Your task to perform on an android device: stop showing notifications on the lock screen Image 0: 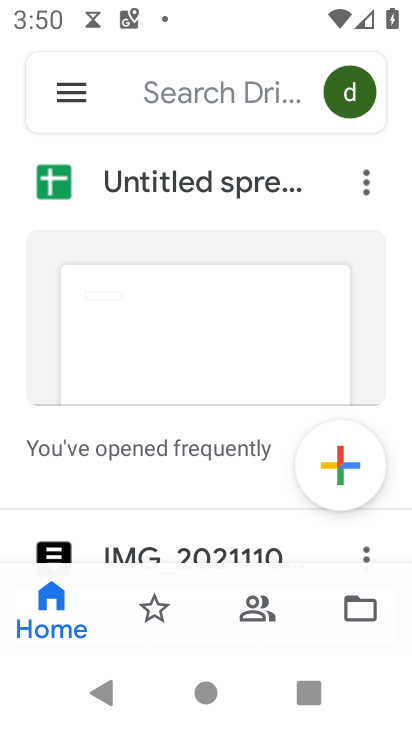
Step 0: press home button
Your task to perform on an android device: stop showing notifications on the lock screen Image 1: 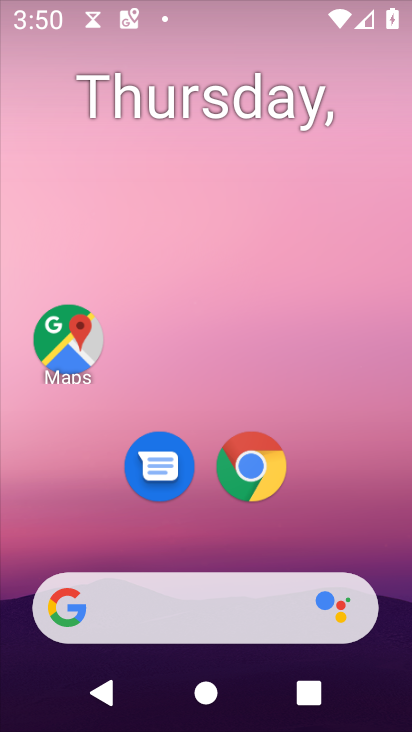
Step 1: drag from (317, 618) to (354, 4)
Your task to perform on an android device: stop showing notifications on the lock screen Image 2: 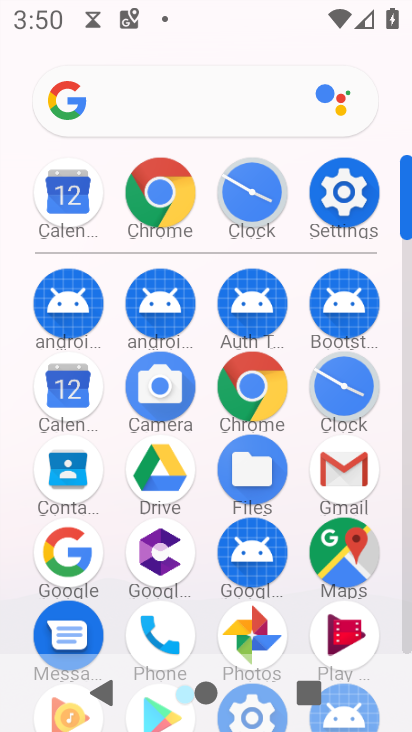
Step 2: click (359, 189)
Your task to perform on an android device: stop showing notifications on the lock screen Image 3: 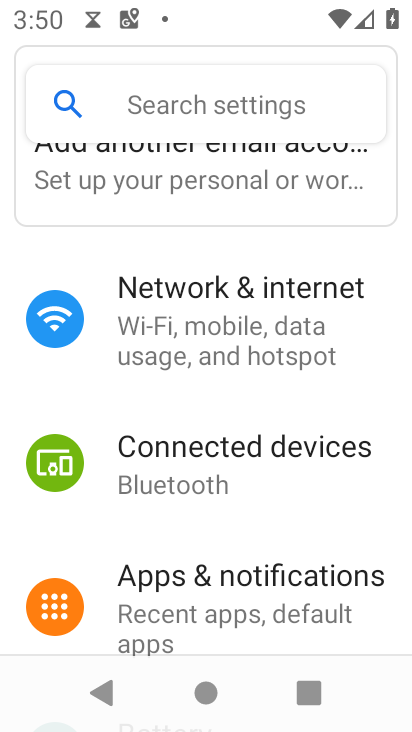
Step 3: drag from (247, 611) to (269, 199)
Your task to perform on an android device: stop showing notifications on the lock screen Image 4: 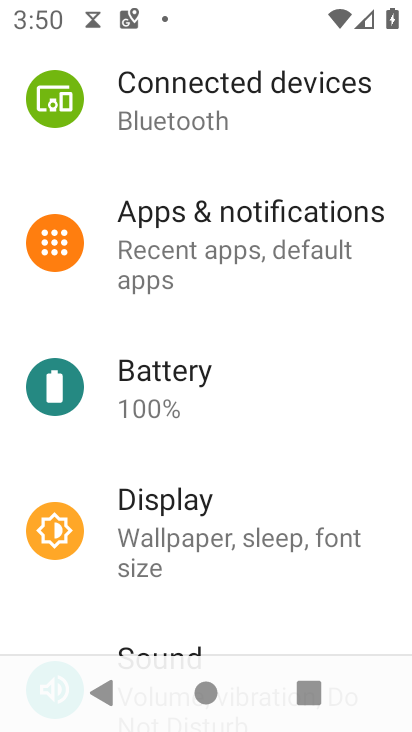
Step 4: click (293, 212)
Your task to perform on an android device: stop showing notifications on the lock screen Image 5: 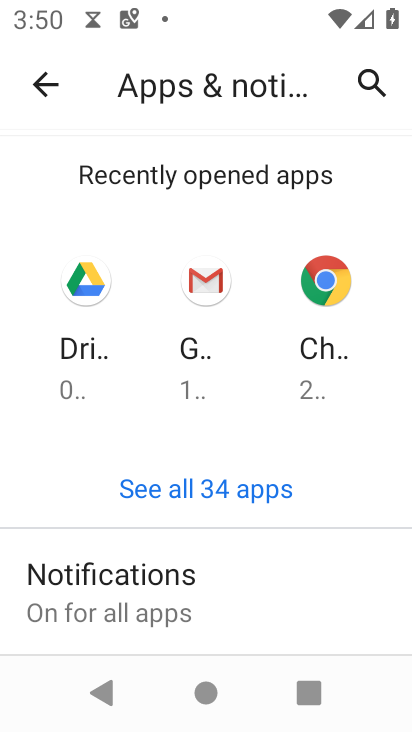
Step 5: drag from (157, 666) to (223, 206)
Your task to perform on an android device: stop showing notifications on the lock screen Image 6: 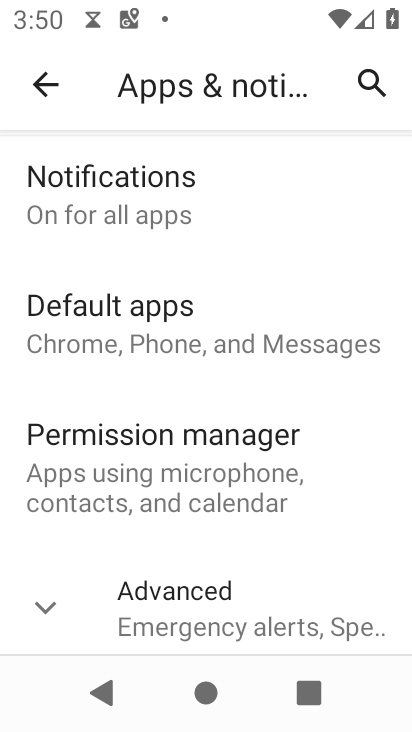
Step 6: click (219, 620)
Your task to perform on an android device: stop showing notifications on the lock screen Image 7: 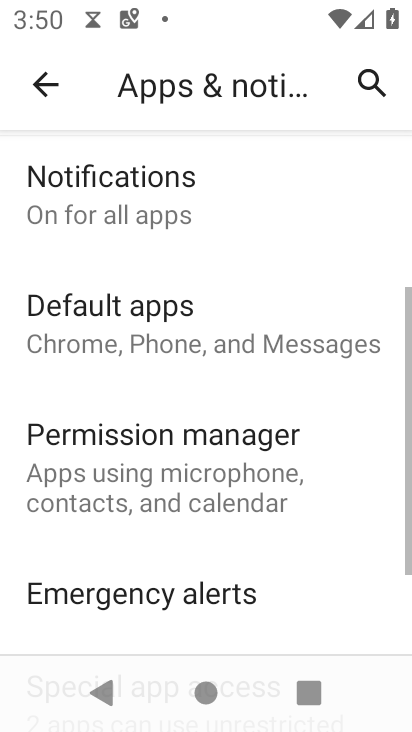
Step 7: drag from (219, 620) to (310, 50)
Your task to perform on an android device: stop showing notifications on the lock screen Image 8: 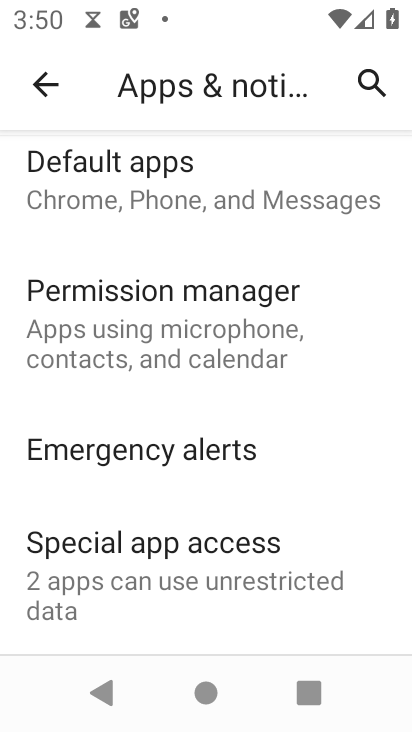
Step 8: drag from (272, 255) to (220, 642)
Your task to perform on an android device: stop showing notifications on the lock screen Image 9: 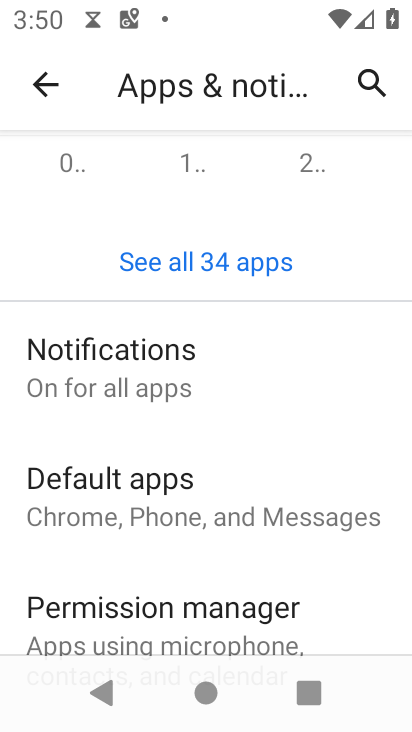
Step 9: click (255, 374)
Your task to perform on an android device: stop showing notifications on the lock screen Image 10: 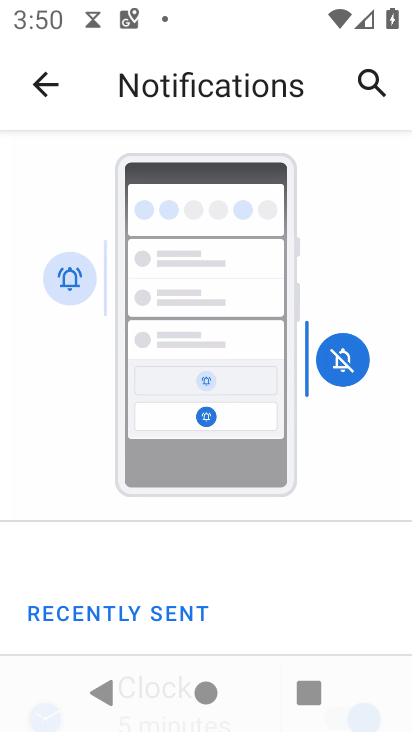
Step 10: drag from (218, 611) to (324, 61)
Your task to perform on an android device: stop showing notifications on the lock screen Image 11: 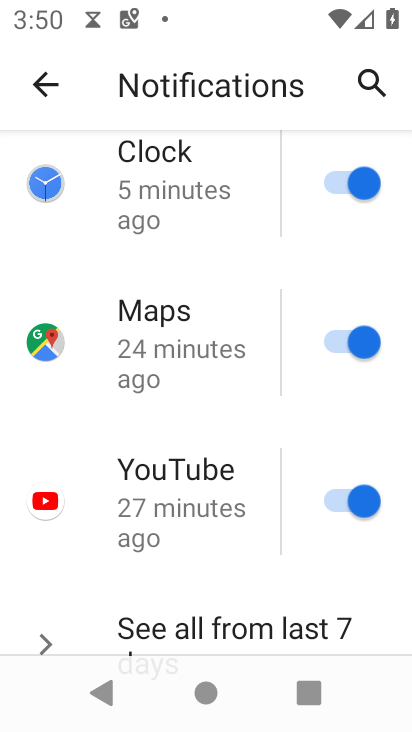
Step 11: drag from (254, 627) to (293, 295)
Your task to perform on an android device: stop showing notifications on the lock screen Image 12: 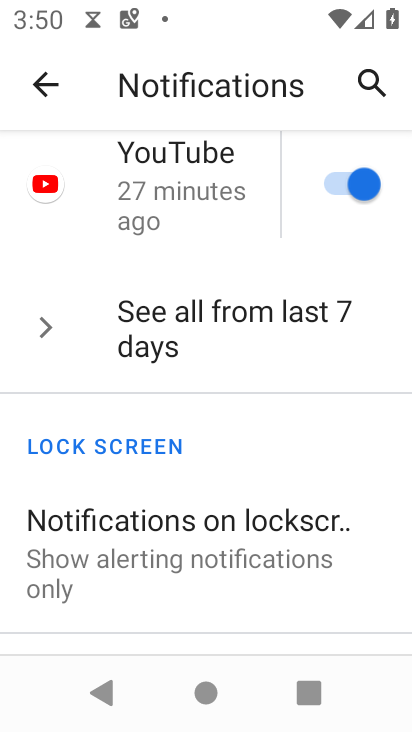
Step 12: click (248, 537)
Your task to perform on an android device: stop showing notifications on the lock screen Image 13: 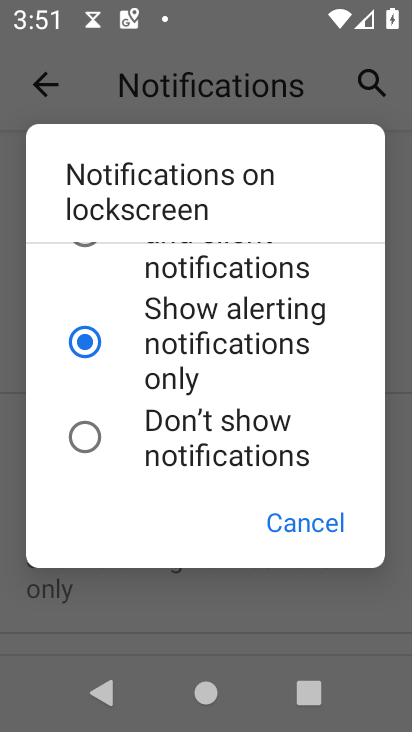
Step 13: click (89, 449)
Your task to perform on an android device: stop showing notifications on the lock screen Image 14: 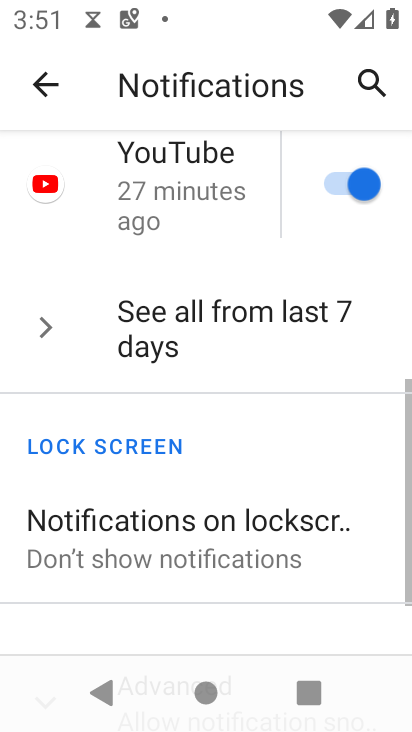
Step 14: task complete